Your task to perform on an android device: What's the weather going to be this weekend? Image 0: 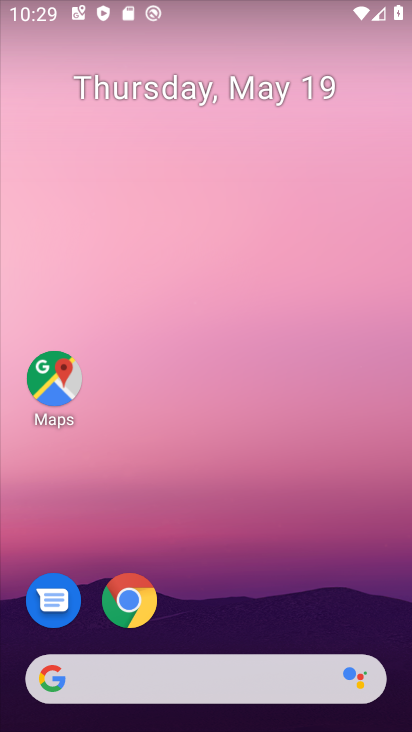
Step 0: press home button
Your task to perform on an android device: What's the weather going to be this weekend? Image 1: 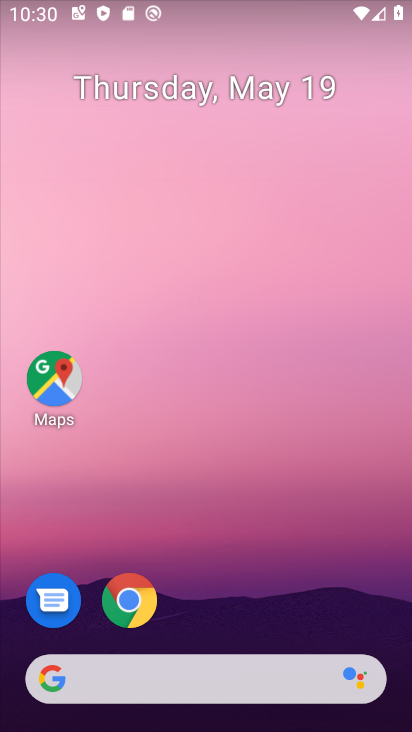
Step 1: click (86, 391)
Your task to perform on an android device: What's the weather going to be this weekend? Image 2: 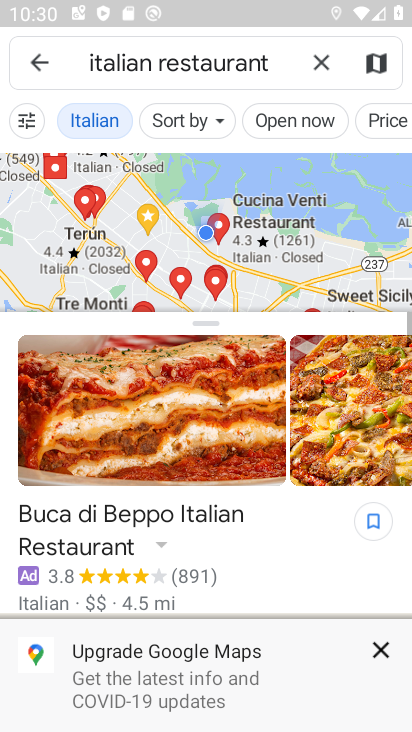
Step 2: click (311, 60)
Your task to perform on an android device: What's the weather going to be this weekend? Image 3: 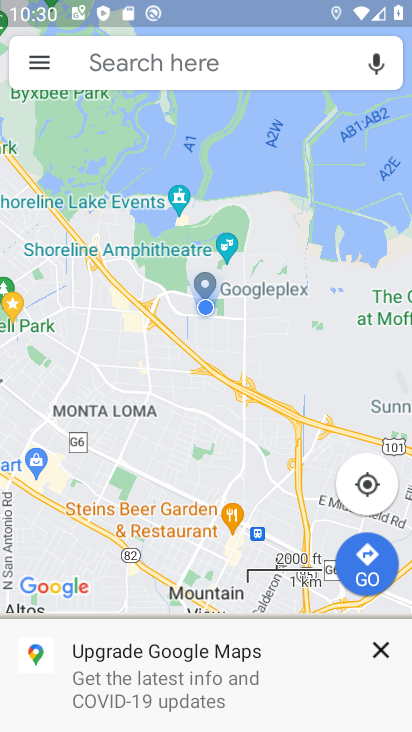
Step 3: click (250, 55)
Your task to perform on an android device: What's the weather going to be this weekend? Image 4: 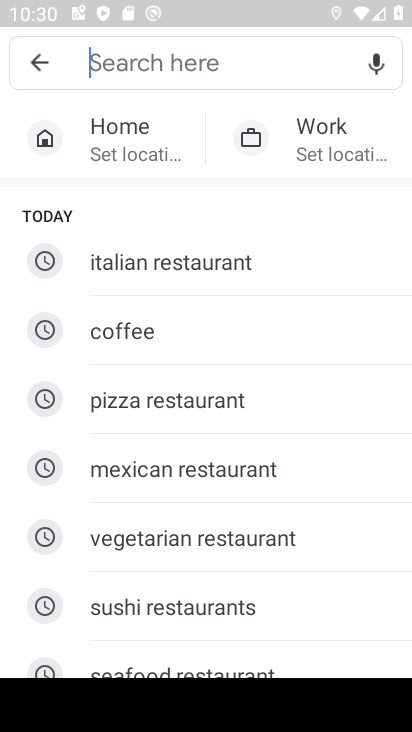
Step 4: type "What's the weather going to be this weekend?"
Your task to perform on an android device: What's the weather going to be this weekend? Image 5: 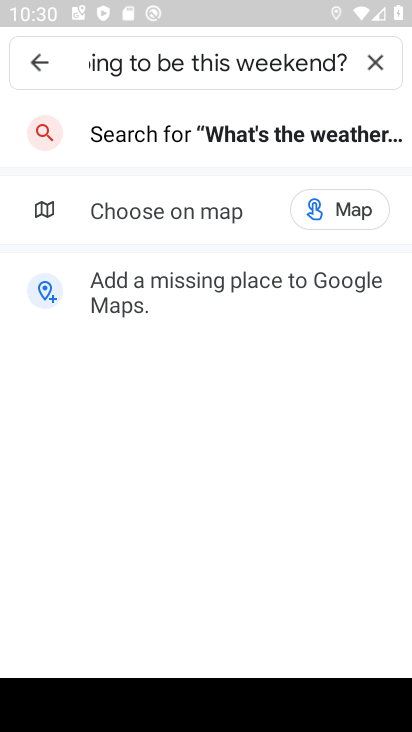
Step 5: click (165, 108)
Your task to perform on an android device: What's the weather going to be this weekend? Image 6: 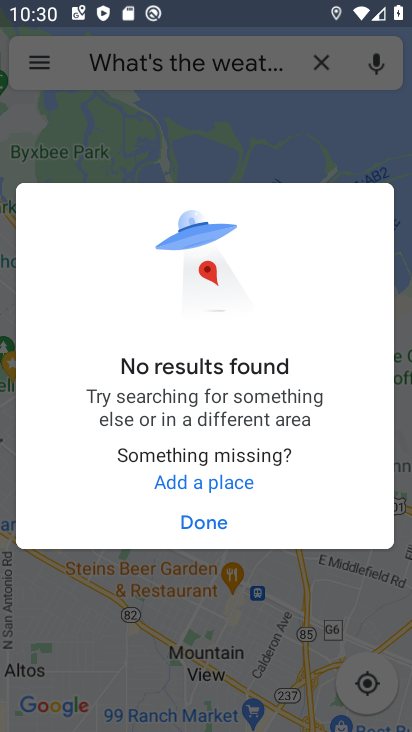
Step 6: task complete